Your task to perform on an android device: Go to sound settings Image 0: 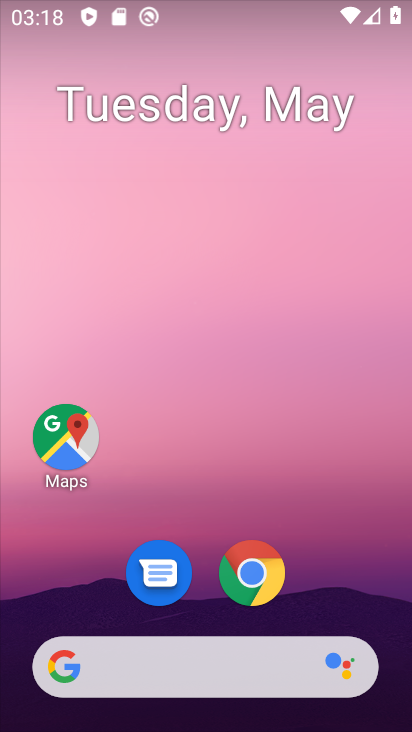
Step 0: drag from (196, 611) to (259, 56)
Your task to perform on an android device: Go to sound settings Image 1: 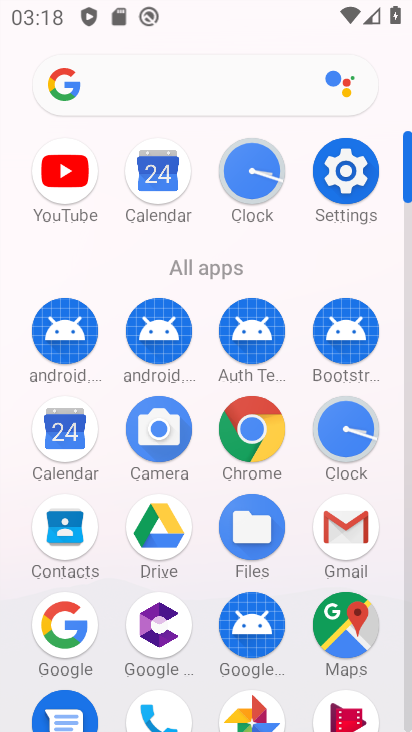
Step 1: click (349, 172)
Your task to perform on an android device: Go to sound settings Image 2: 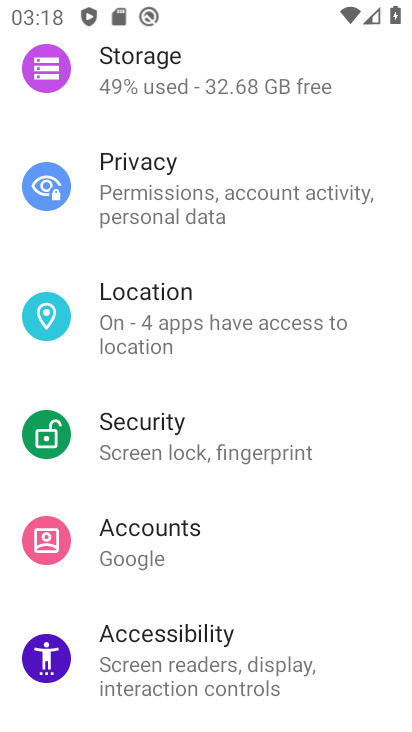
Step 2: drag from (231, 139) to (191, 682)
Your task to perform on an android device: Go to sound settings Image 3: 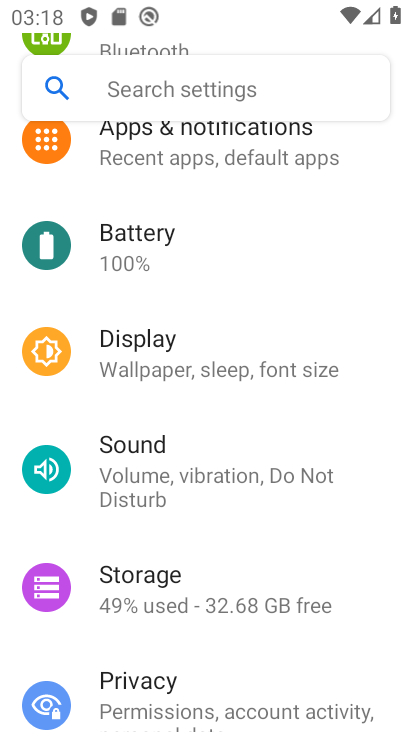
Step 3: click (152, 467)
Your task to perform on an android device: Go to sound settings Image 4: 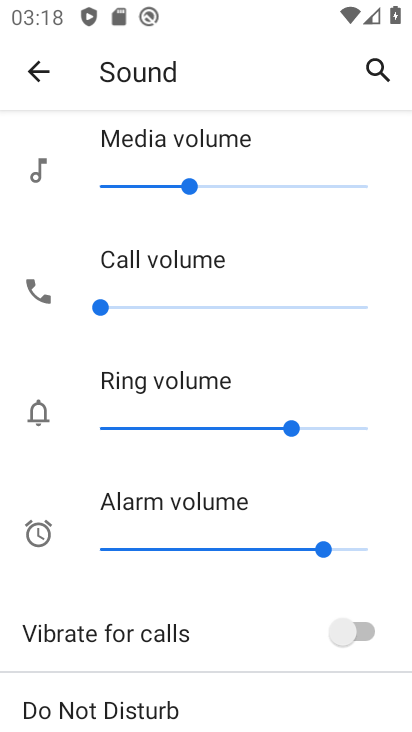
Step 4: task complete